Your task to perform on an android device: What is the news today? Image 0: 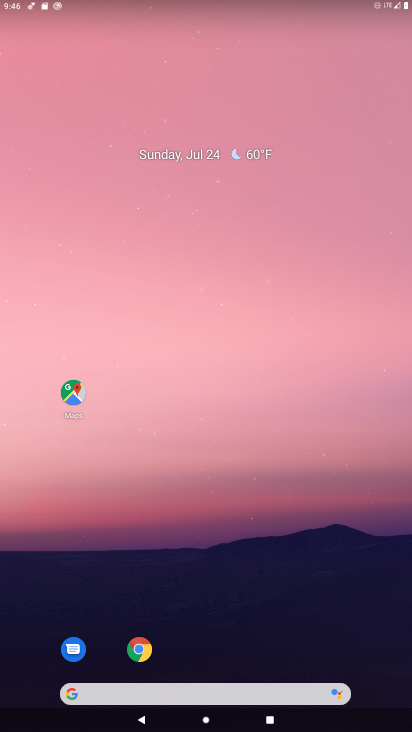
Step 0: press home button
Your task to perform on an android device: What is the news today? Image 1: 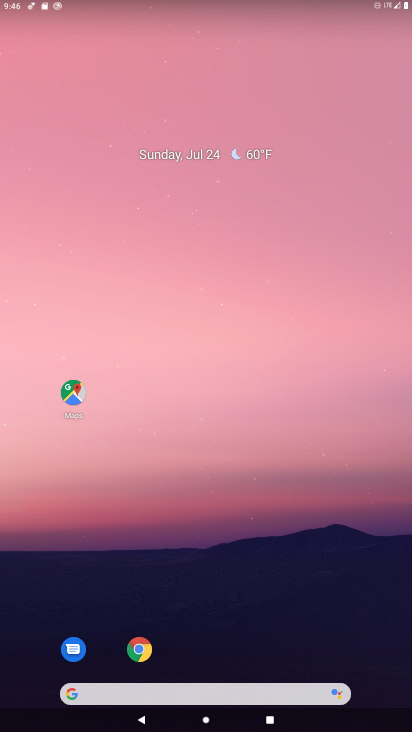
Step 1: drag from (268, 673) to (300, 144)
Your task to perform on an android device: What is the news today? Image 2: 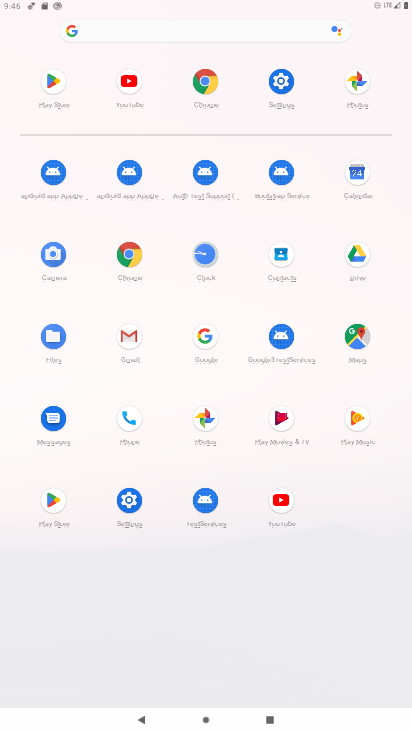
Step 2: click (207, 81)
Your task to perform on an android device: What is the news today? Image 3: 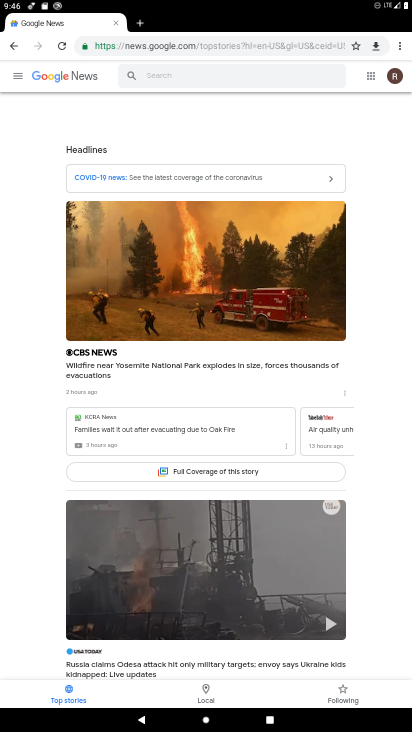
Step 3: click (220, 48)
Your task to perform on an android device: What is the news today? Image 4: 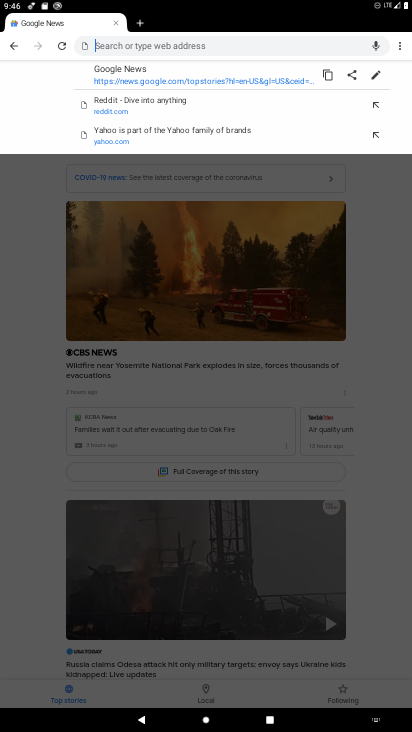
Step 4: type "news"
Your task to perform on an android device: What is the news today? Image 5: 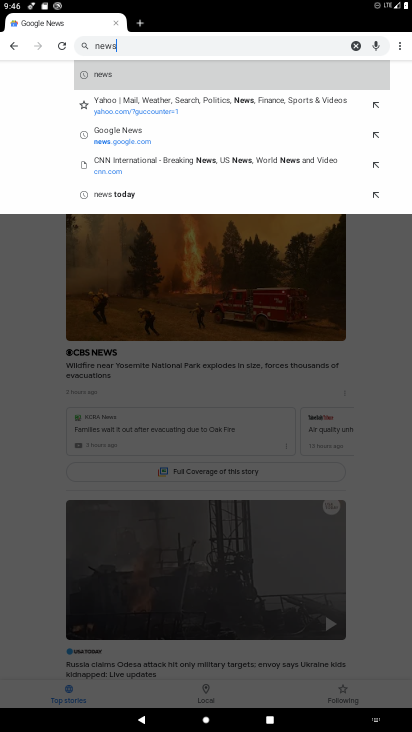
Step 5: click (146, 75)
Your task to perform on an android device: What is the news today? Image 6: 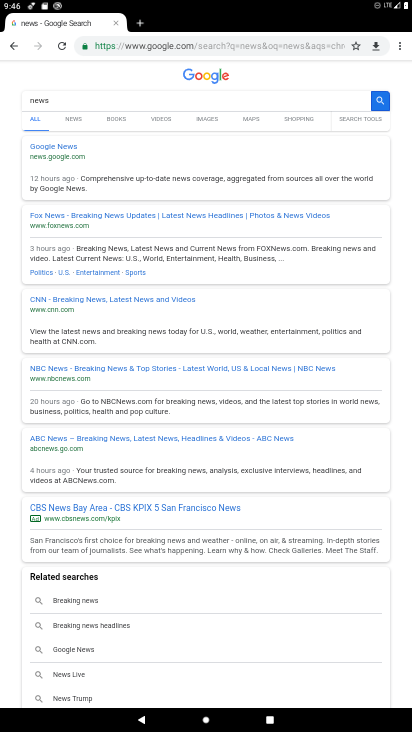
Step 6: click (70, 138)
Your task to perform on an android device: What is the news today? Image 7: 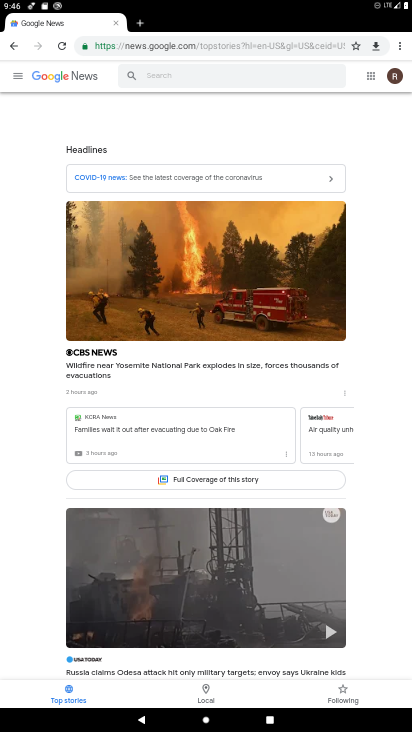
Step 7: task complete